Your task to perform on an android device: turn off improve location accuracy Image 0: 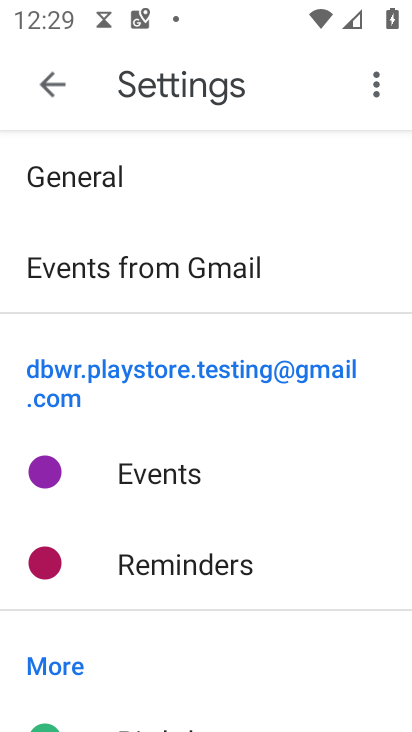
Step 0: press home button
Your task to perform on an android device: turn off improve location accuracy Image 1: 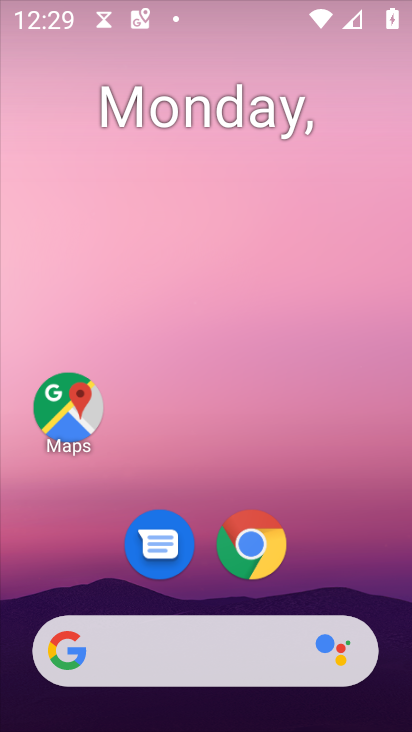
Step 1: drag from (332, 569) to (299, 216)
Your task to perform on an android device: turn off improve location accuracy Image 2: 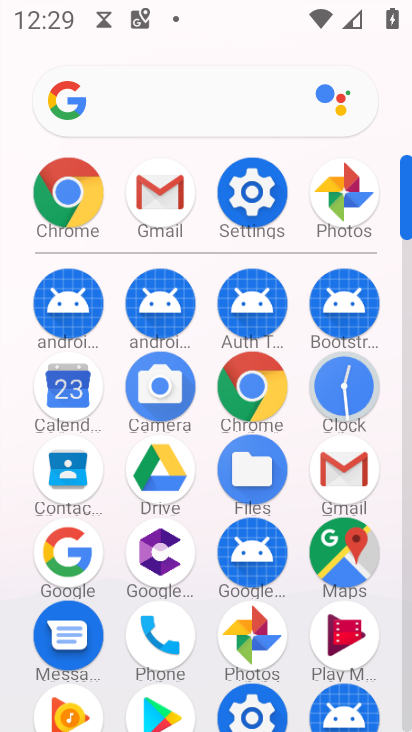
Step 2: click (244, 182)
Your task to perform on an android device: turn off improve location accuracy Image 3: 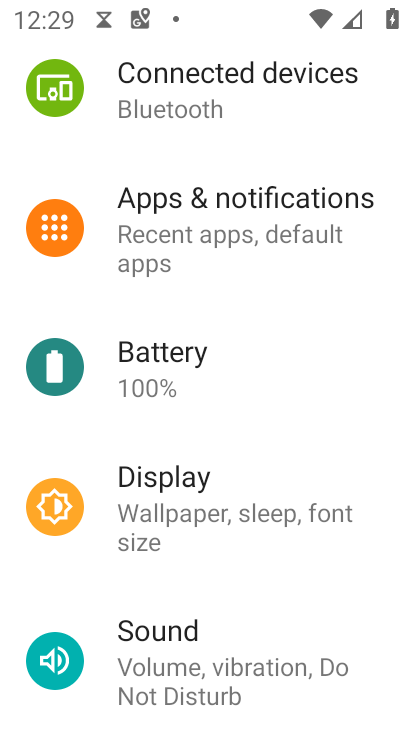
Step 3: drag from (199, 147) to (243, 168)
Your task to perform on an android device: turn off improve location accuracy Image 4: 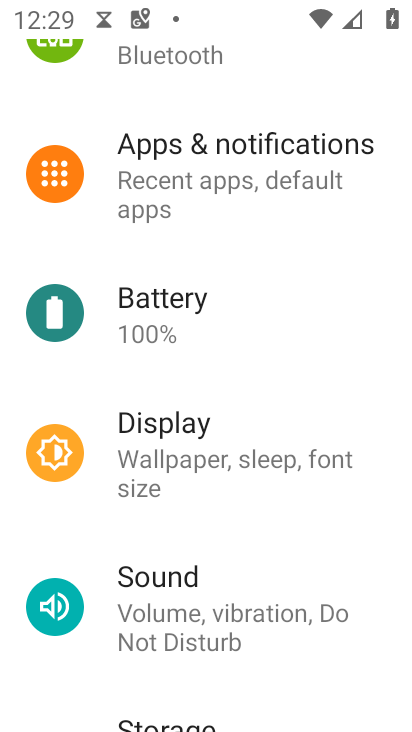
Step 4: drag from (261, 541) to (280, 206)
Your task to perform on an android device: turn off improve location accuracy Image 5: 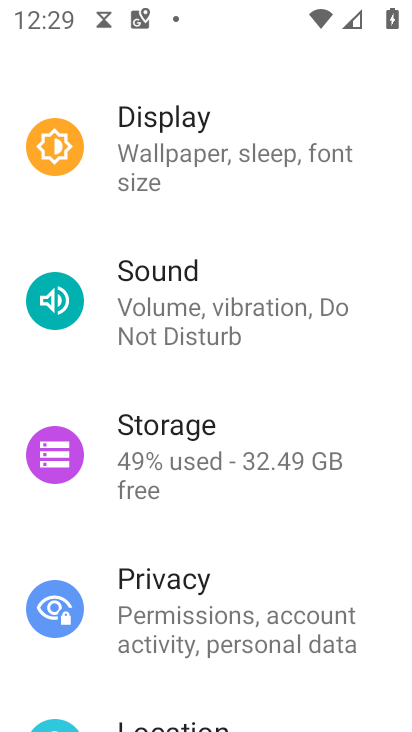
Step 5: drag from (215, 589) to (240, 307)
Your task to perform on an android device: turn off improve location accuracy Image 6: 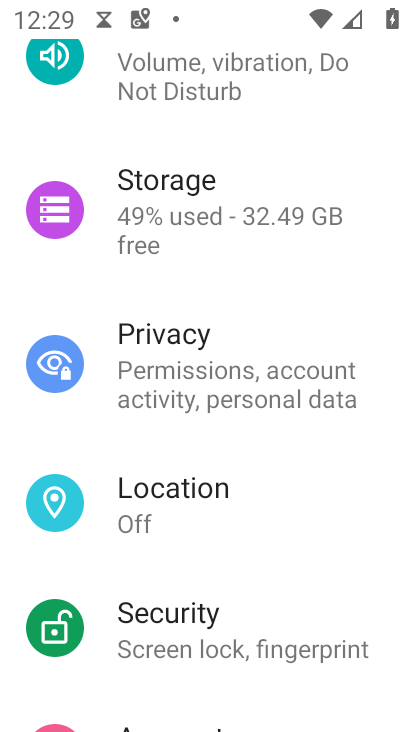
Step 6: click (169, 525)
Your task to perform on an android device: turn off improve location accuracy Image 7: 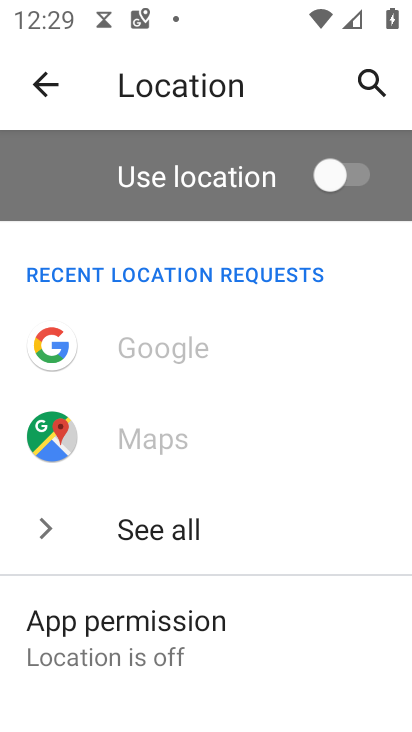
Step 7: drag from (180, 646) to (209, 261)
Your task to perform on an android device: turn off improve location accuracy Image 8: 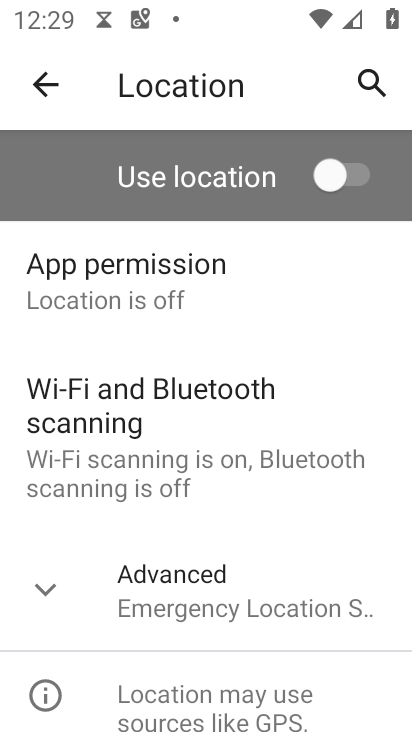
Step 8: click (194, 569)
Your task to perform on an android device: turn off improve location accuracy Image 9: 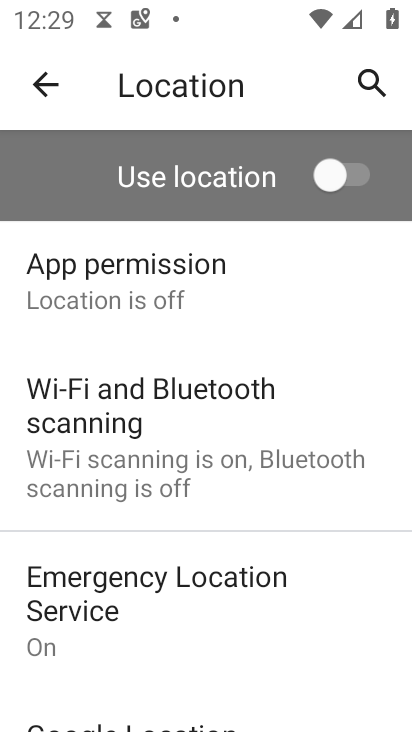
Step 9: drag from (166, 586) to (227, 300)
Your task to perform on an android device: turn off improve location accuracy Image 10: 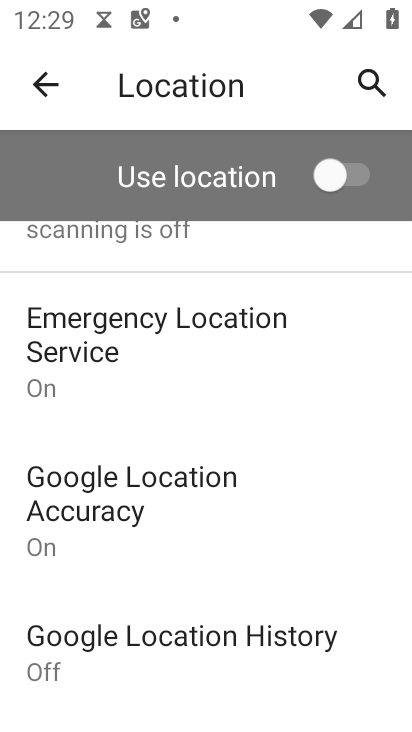
Step 10: click (205, 489)
Your task to perform on an android device: turn off improve location accuracy Image 11: 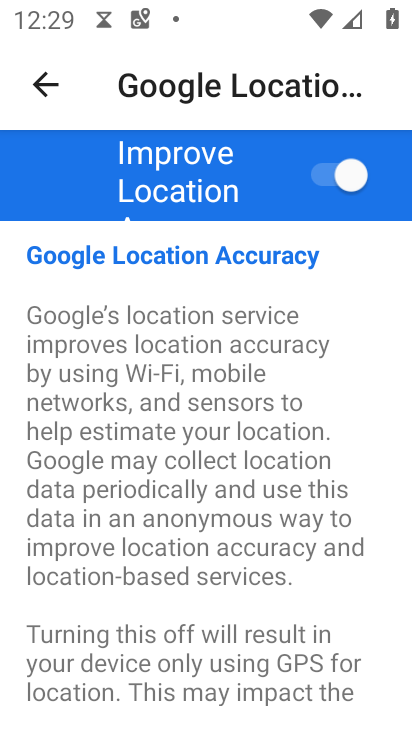
Step 11: click (331, 156)
Your task to perform on an android device: turn off improve location accuracy Image 12: 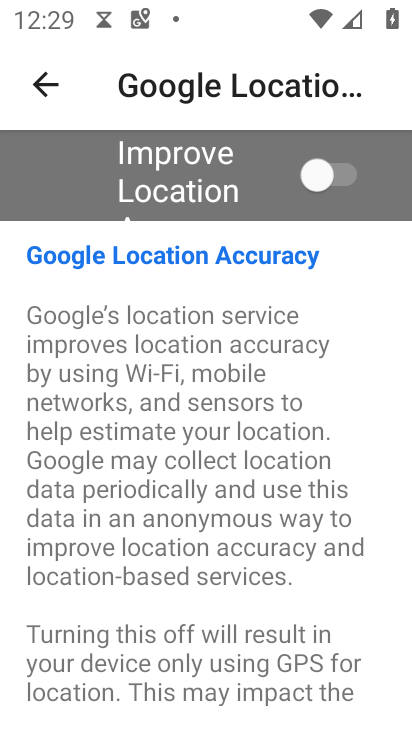
Step 12: task complete